Your task to perform on an android device: change notifications settings Image 0: 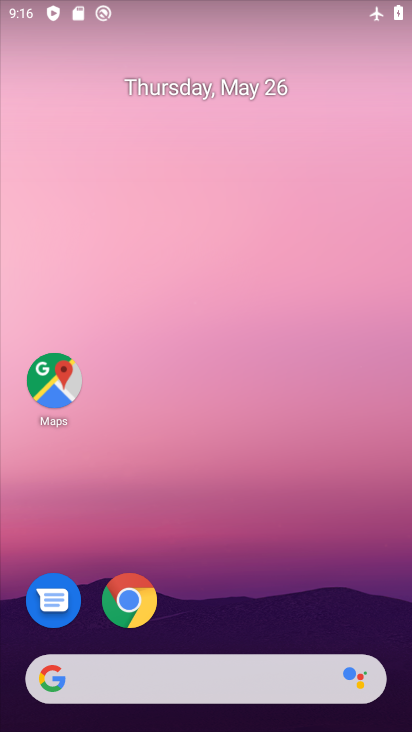
Step 0: drag from (268, 378) to (274, 21)
Your task to perform on an android device: change notifications settings Image 1: 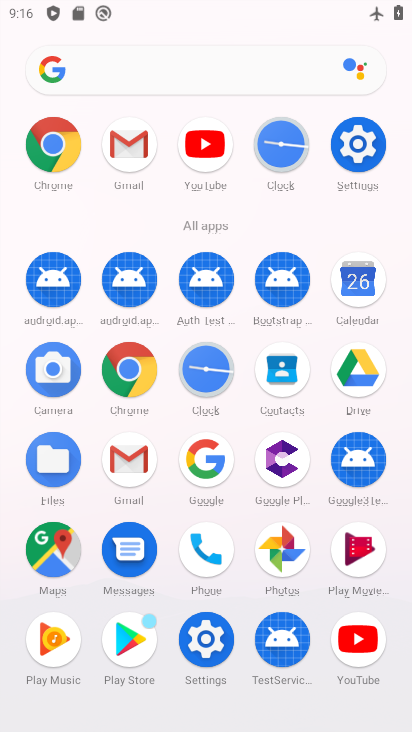
Step 1: click (368, 139)
Your task to perform on an android device: change notifications settings Image 2: 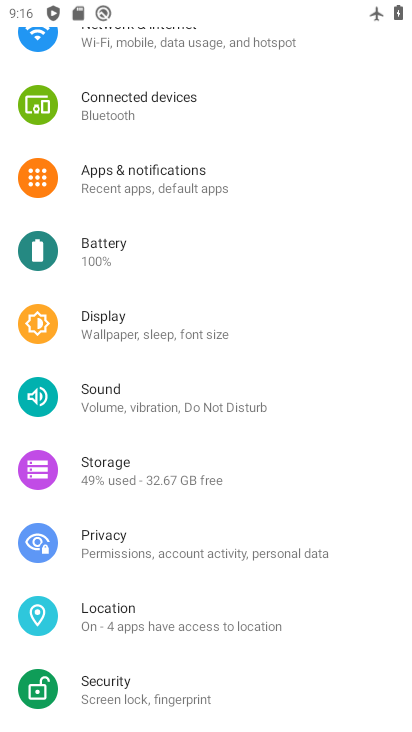
Step 2: drag from (136, 140) to (150, 417)
Your task to perform on an android device: change notifications settings Image 3: 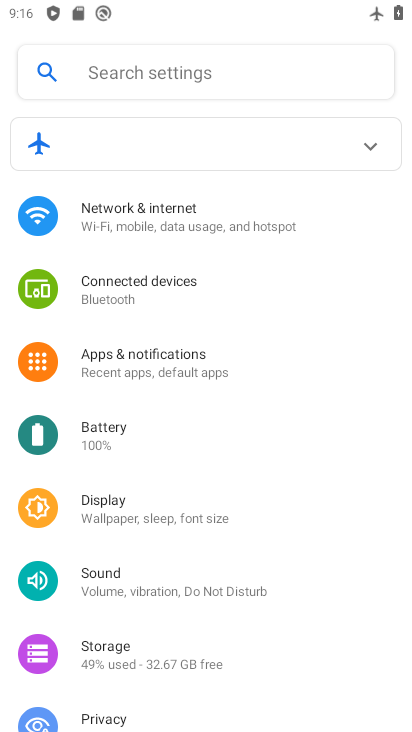
Step 3: click (158, 359)
Your task to perform on an android device: change notifications settings Image 4: 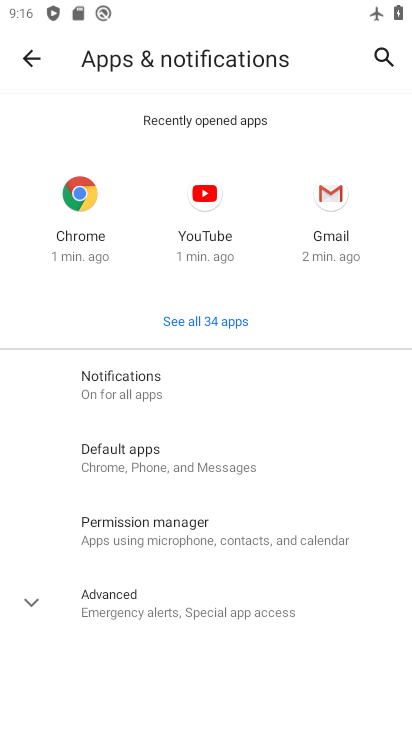
Step 4: click (160, 393)
Your task to perform on an android device: change notifications settings Image 5: 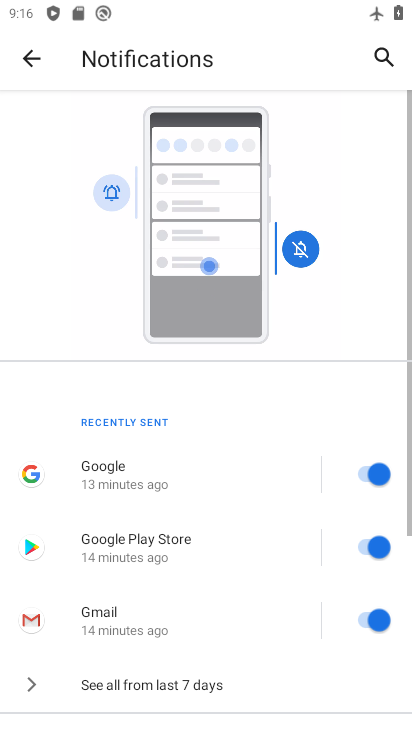
Step 5: drag from (251, 449) to (279, 73)
Your task to perform on an android device: change notifications settings Image 6: 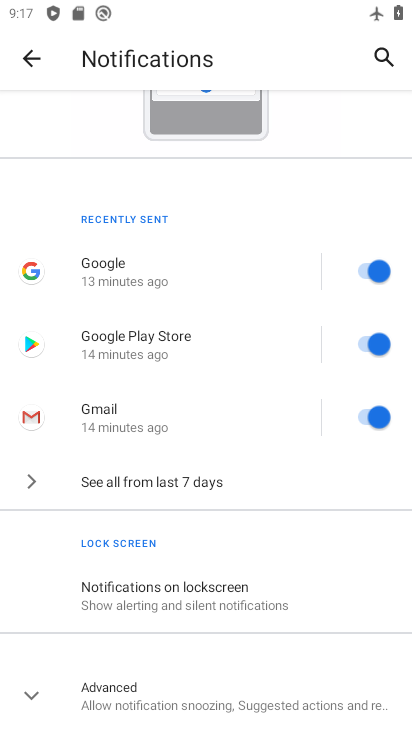
Step 6: drag from (241, 575) to (315, 196)
Your task to perform on an android device: change notifications settings Image 7: 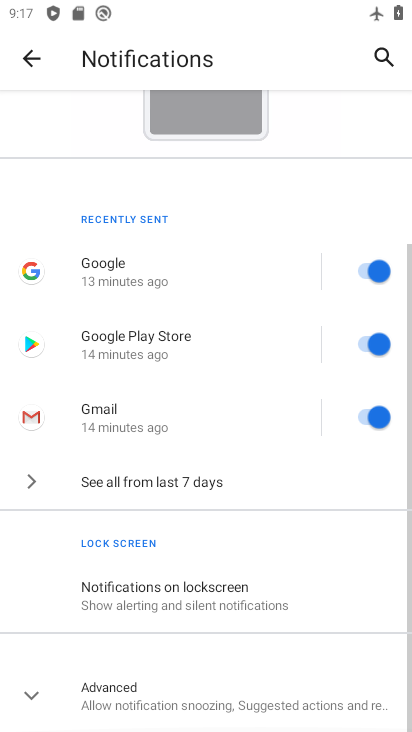
Step 7: click (211, 681)
Your task to perform on an android device: change notifications settings Image 8: 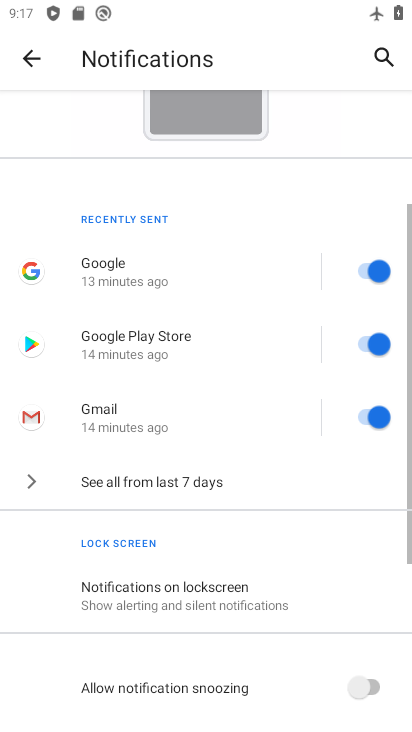
Step 8: drag from (216, 653) to (270, 223)
Your task to perform on an android device: change notifications settings Image 9: 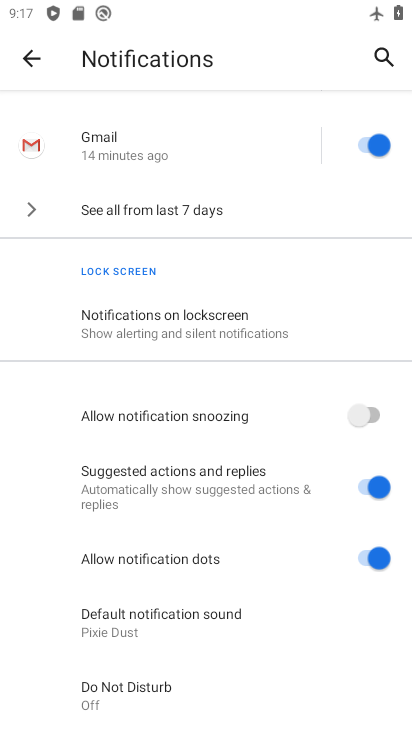
Step 9: click (372, 402)
Your task to perform on an android device: change notifications settings Image 10: 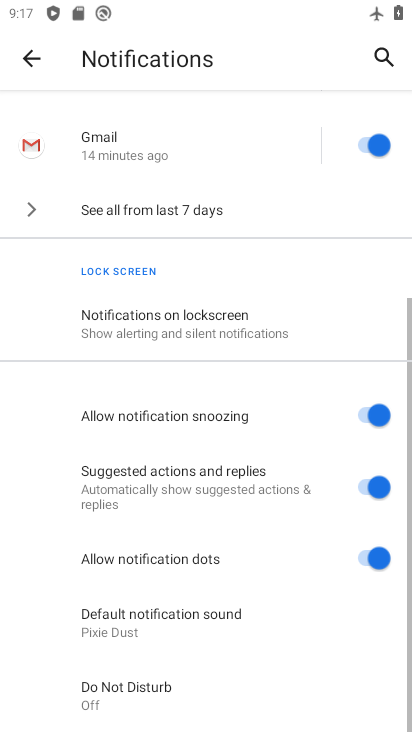
Step 10: task complete